Your task to perform on an android device: Is it going to rain today? Image 0: 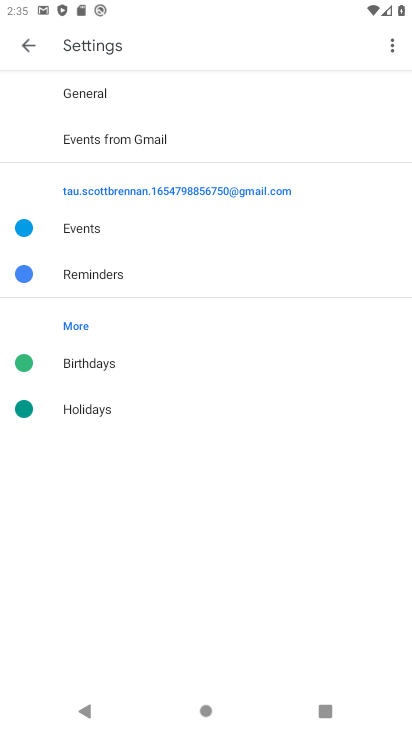
Step 0: click (25, 47)
Your task to perform on an android device: Is it going to rain today? Image 1: 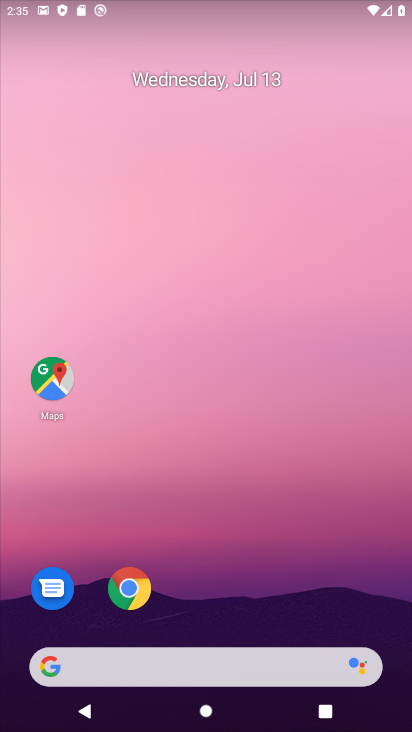
Step 1: drag from (217, 706) to (138, 48)
Your task to perform on an android device: Is it going to rain today? Image 2: 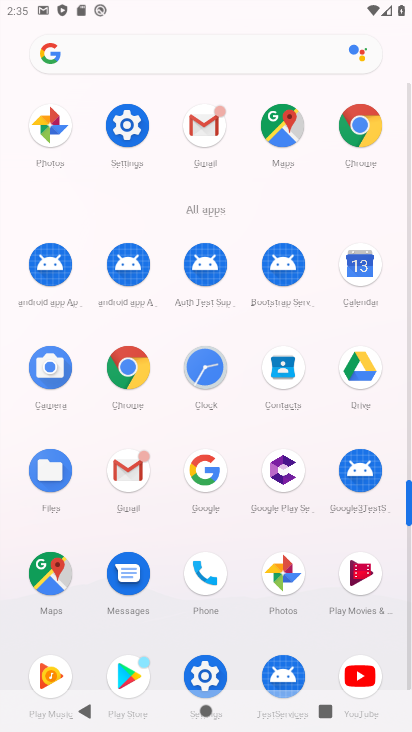
Step 2: click (123, 367)
Your task to perform on an android device: Is it going to rain today? Image 3: 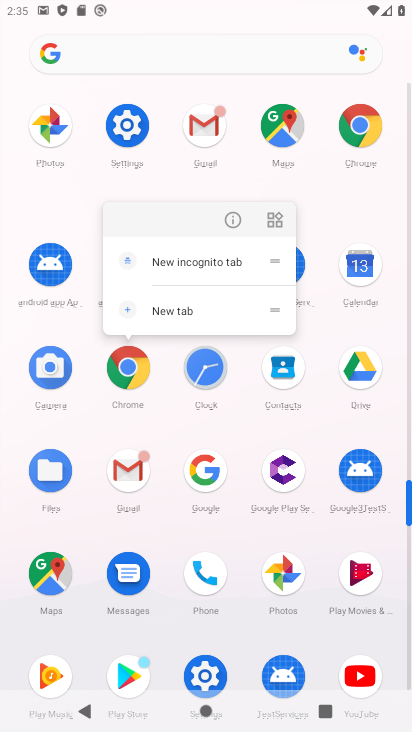
Step 3: click (135, 351)
Your task to perform on an android device: Is it going to rain today? Image 4: 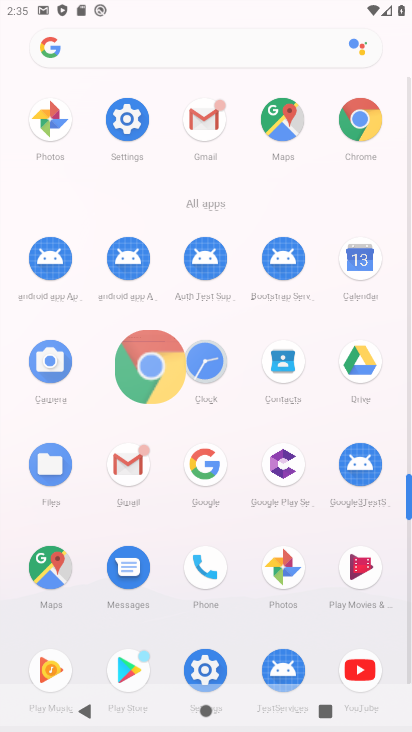
Step 4: click (134, 352)
Your task to perform on an android device: Is it going to rain today? Image 5: 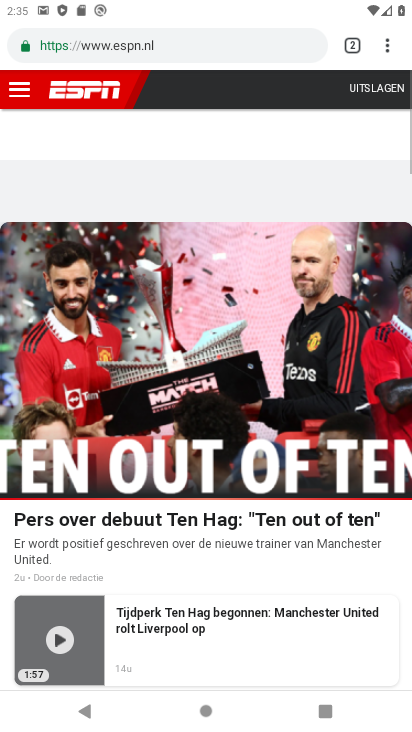
Step 5: click (180, 52)
Your task to perform on an android device: Is it going to rain today? Image 6: 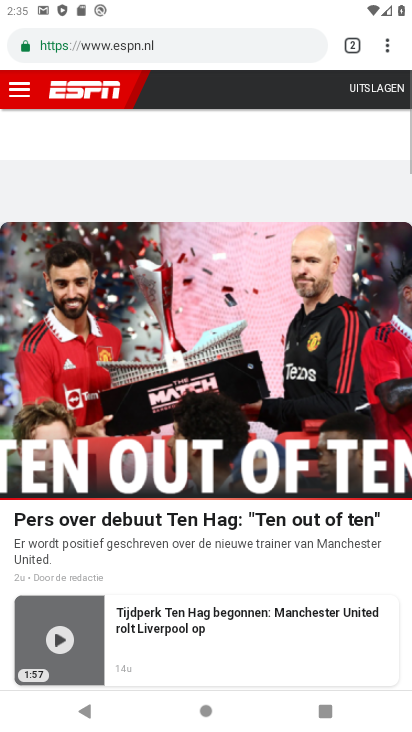
Step 6: click (180, 52)
Your task to perform on an android device: Is it going to rain today? Image 7: 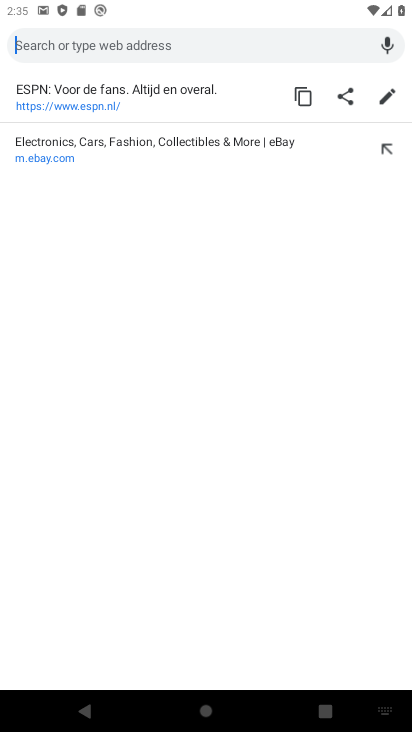
Step 7: click (386, 45)
Your task to perform on an android device: Is it going to rain today? Image 8: 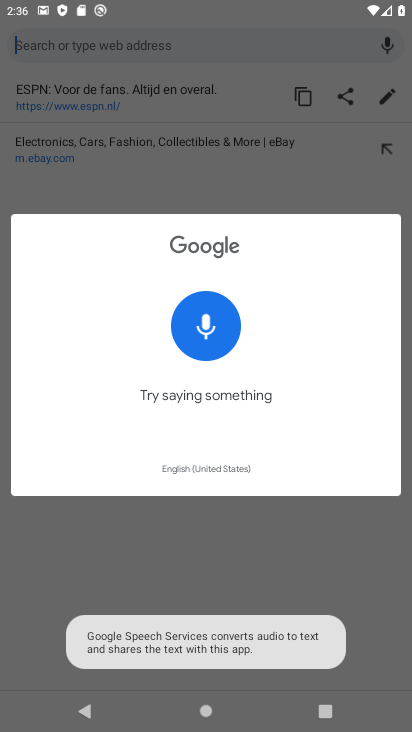
Step 8: click (270, 178)
Your task to perform on an android device: Is it going to rain today? Image 9: 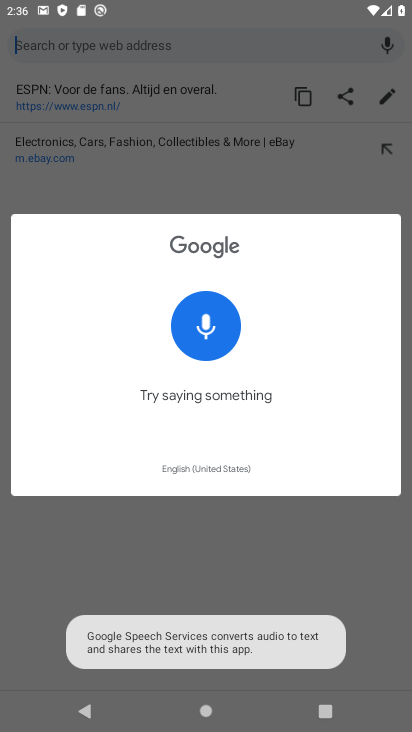
Step 9: click (270, 178)
Your task to perform on an android device: Is it going to rain today? Image 10: 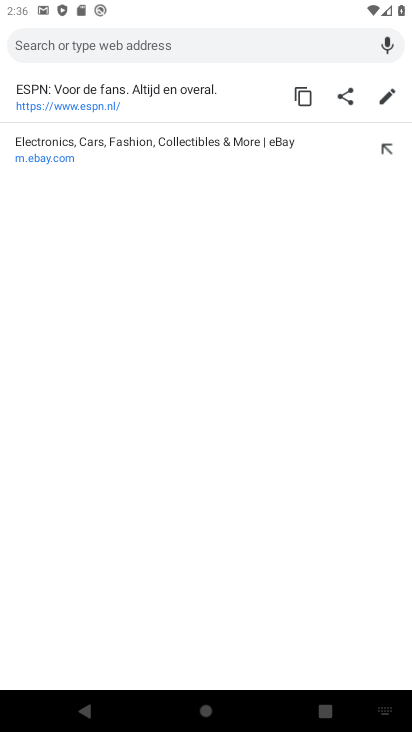
Step 10: type "is it going to rain today?"
Your task to perform on an android device: Is it going to rain today? Image 11: 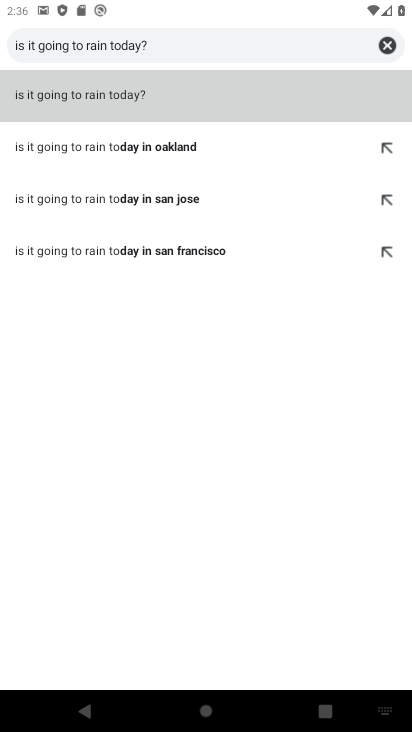
Step 11: click (86, 89)
Your task to perform on an android device: Is it going to rain today? Image 12: 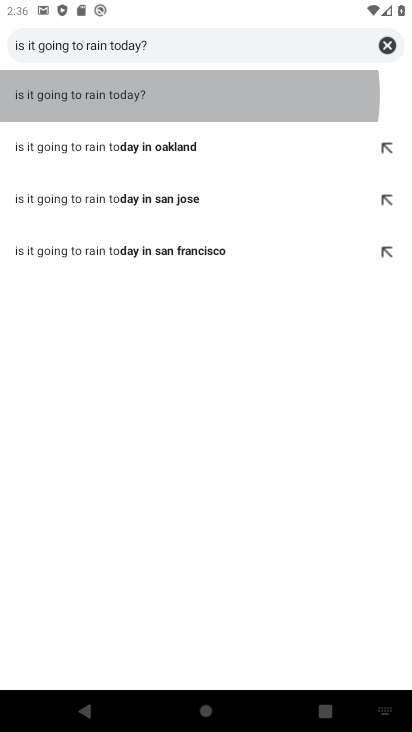
Step 12: click (86, 89)
Your task to perform on an android device: Is it going to rain today? Image 13: 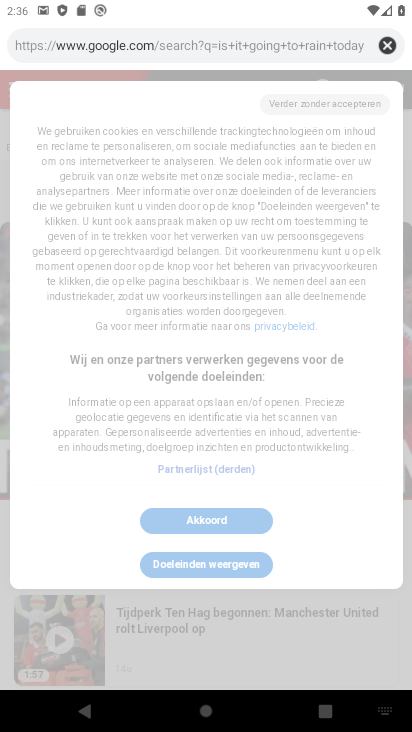
Step 13: click (86, 89)
Your task to perform on an android device: Is it going to rain today? Image 14: 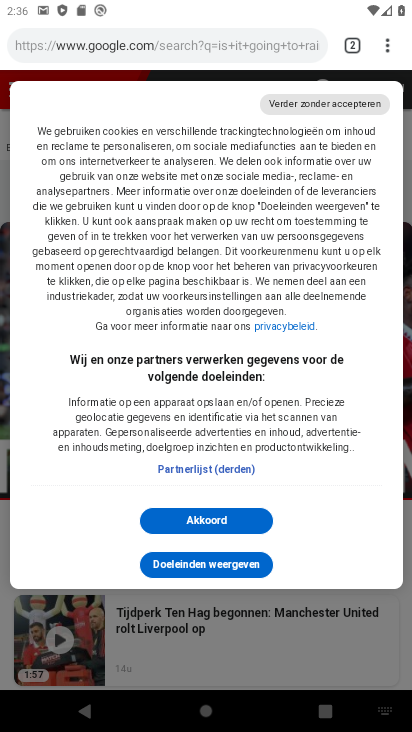
Step 14: click (88, 88)
Your task to perform on an android device: Is it going to rain today? Image 15: 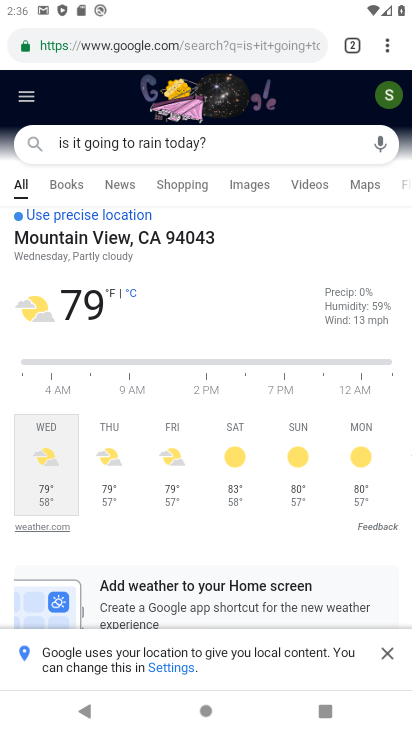
Step 15: task complete